Your task to perform on an android device: turn smart compose on in the gmail app Image 0: 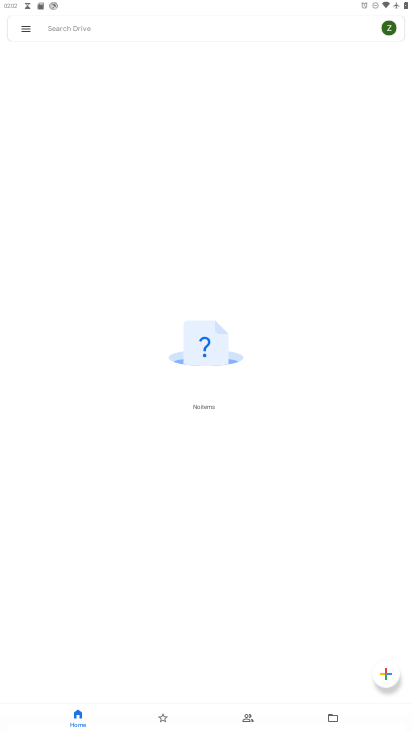
Step 0: press home button
Your task to perform on an android device: turn smart compose on in the gmail app Image 1: 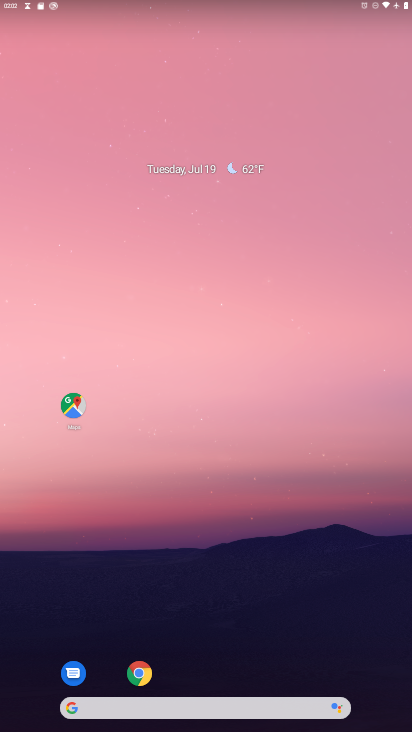
Step 1: drag from (209, 674) to (231, 359)
Your task to perform on an android device: turn smart compose on in the gmail app Image 2: 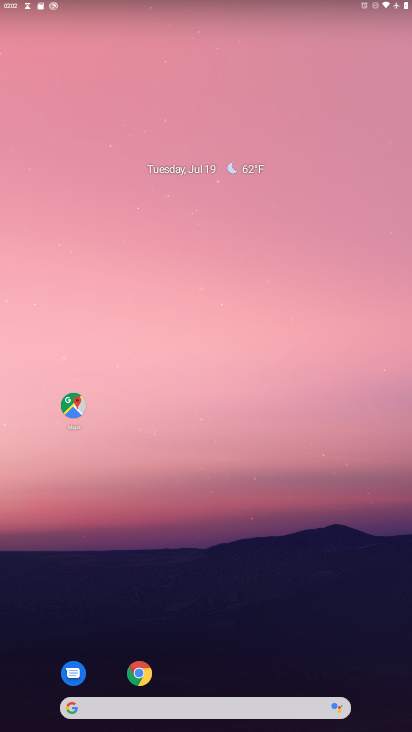
Step 2: drag from (259, 708) to (255, 321)
Your task to perform on an android device: turn smart compose on in the gmail app Image 3: 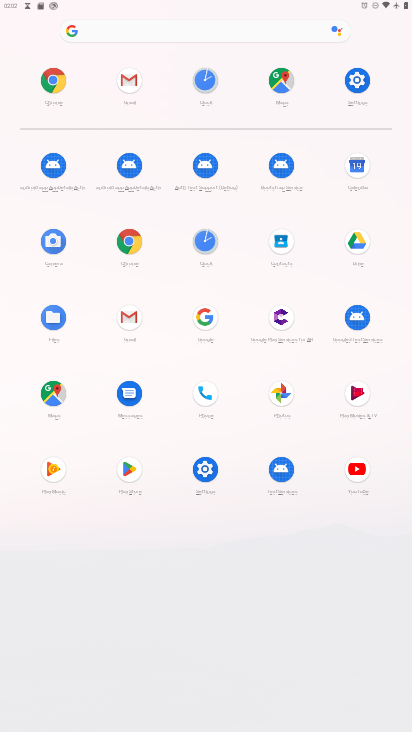
Step 3: click (131, 72)
Your task to perform on an android device: turn smart compose on in the gmail app Image 4: 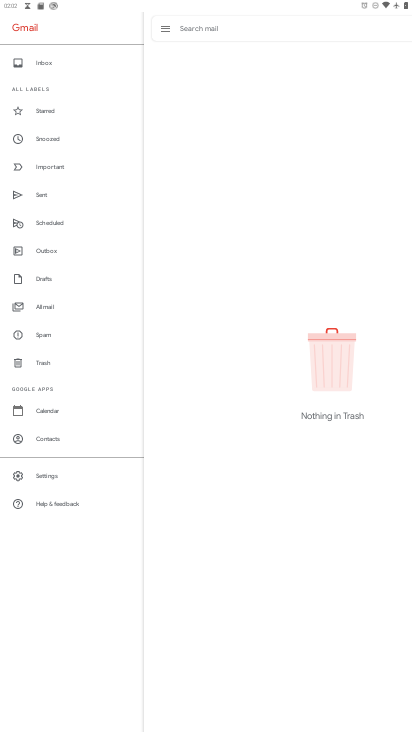
Step 4: click (41, 471)
Your task to perform on an android device: turn smart compose on in the gmail app Image 5: 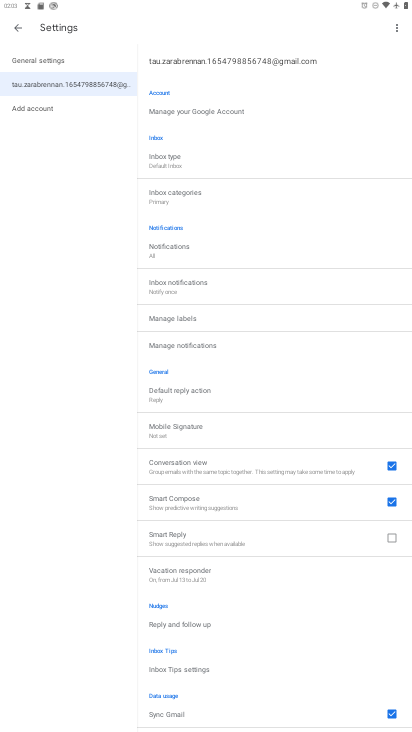
Step 5: task complete